Your task to perform on an android device: install app "HBO Max: Stream TV & Movies" Image 0: 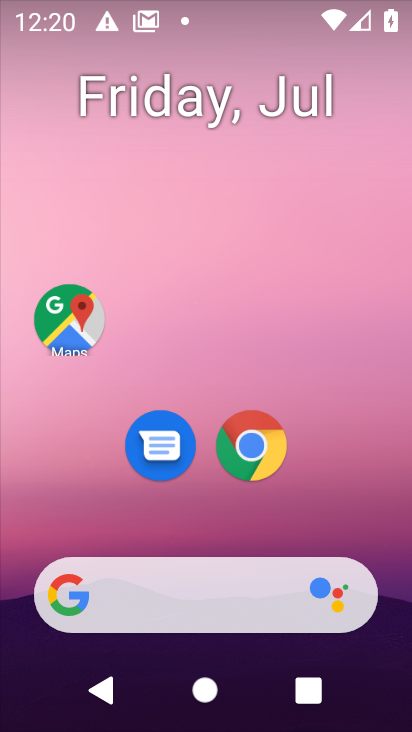
Step 0: drag from (199, 543) to (79, 14)
Your task to perform on an android device: install app "HBO Max: Stream TV & Movies" Image 1: 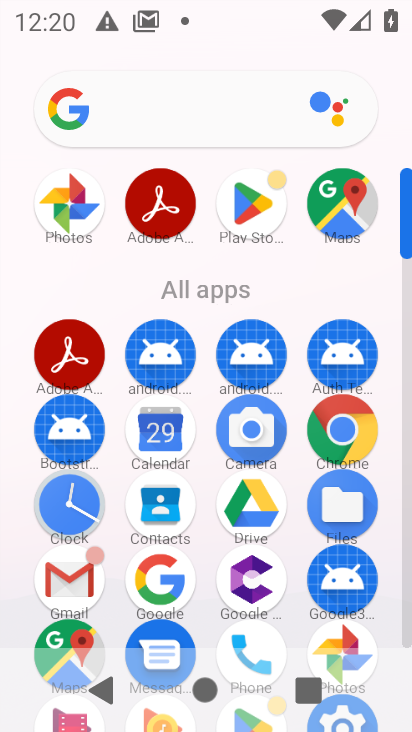
Step 1: click (259, 221)
Your task to perform on an android device: install app "HBO Max: Stream TV & Movies" Image 2: 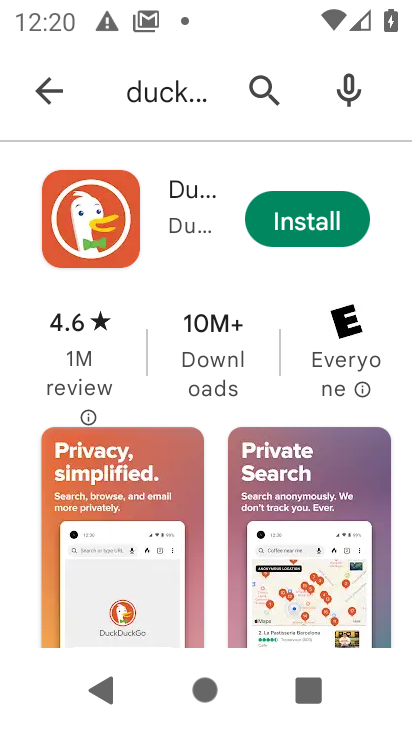
Step 2: click (143, 81)
Your task to perform on an android device: install app "HBO Max: Stream TV & Movies" Image 3: 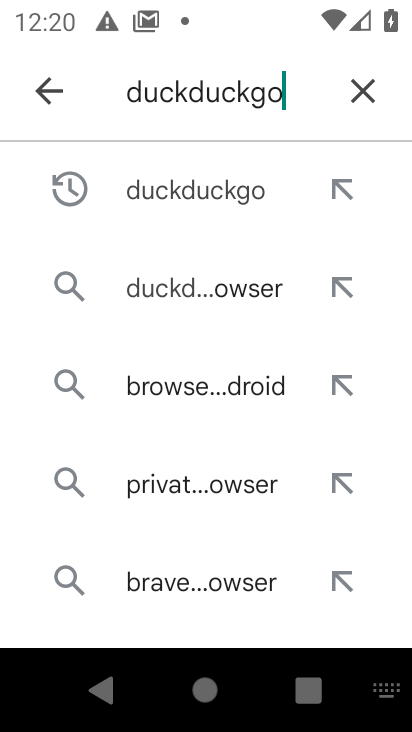
Step 3: click (367, 104)
Your task to perform on an android device: install app "HBO Max: Stream TV & Movies" Image 4: 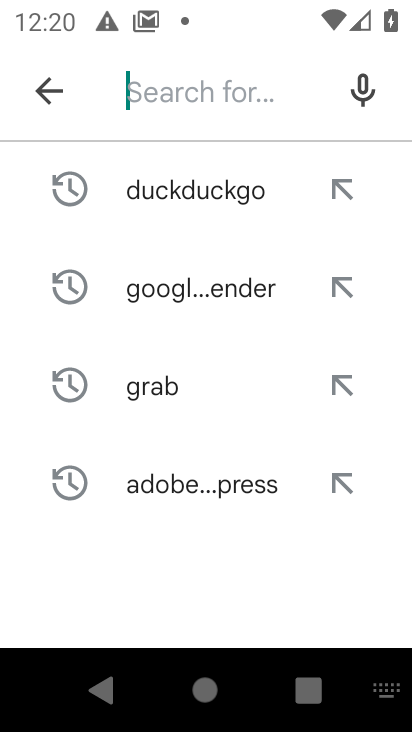
Step 4: click (177, 103)
Your task to perform on an android device: install app "HBO Max: Stream TV & Movies" Image 5: 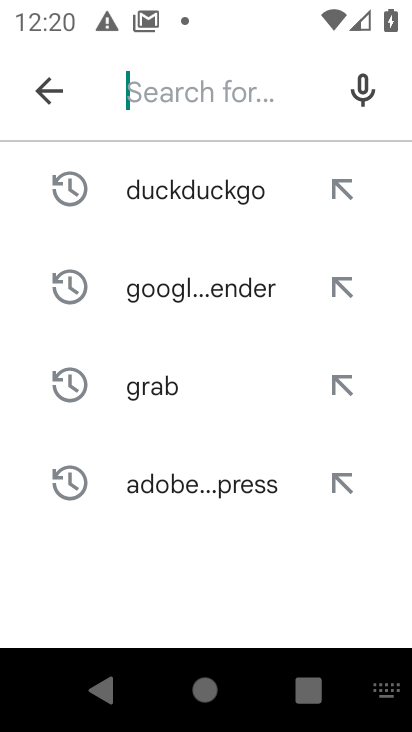
Step 5: type "HBO max"
Your task to perform on an android device: install app "HBO Max: Stream TV & Movies" Image 6: 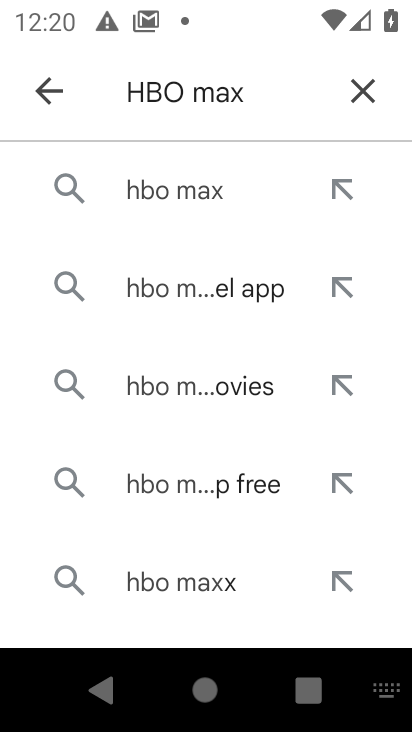
Step 6: click (174, 201)
Your task to perform on an android device: install app "HBO Max: Stream TV & Movies" Image 7: 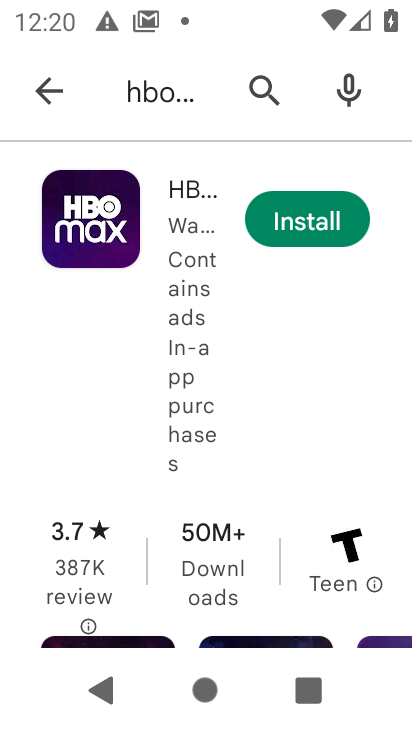
Step 7: click (301, 220)
Your task to perform on an android device: install app "HBO Max: Stream TV & Movies" Image 8: 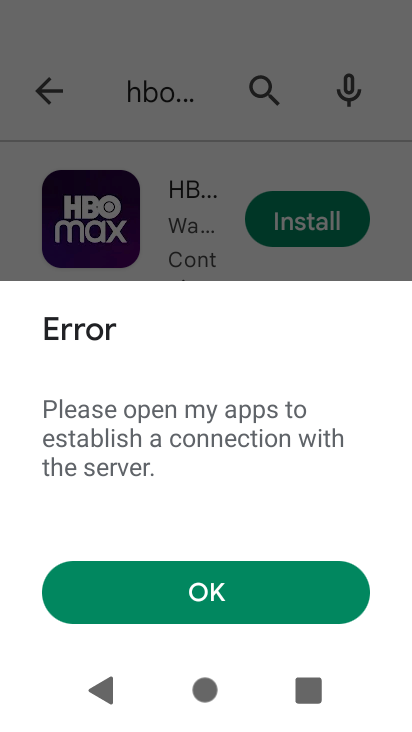
Step 8: click (250, 588)
Your task to perform on an android device: install app "HBO Max: Stream TV & Movies" Image 9: 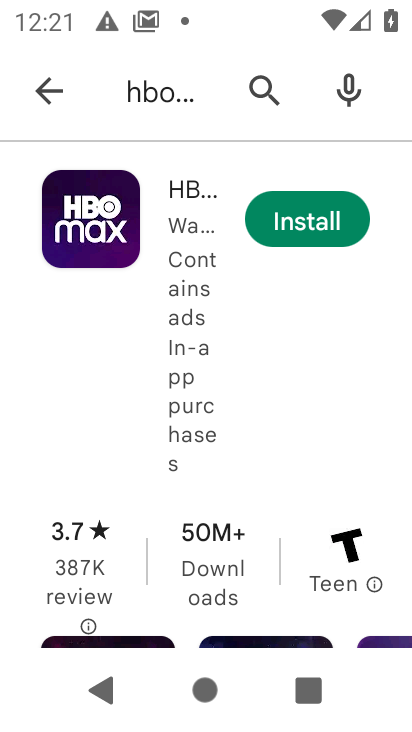
Step 9: click (273, 200)
Your task to perform on an android device: install app "HBO Max: Stream TV & Movies" Image 10: 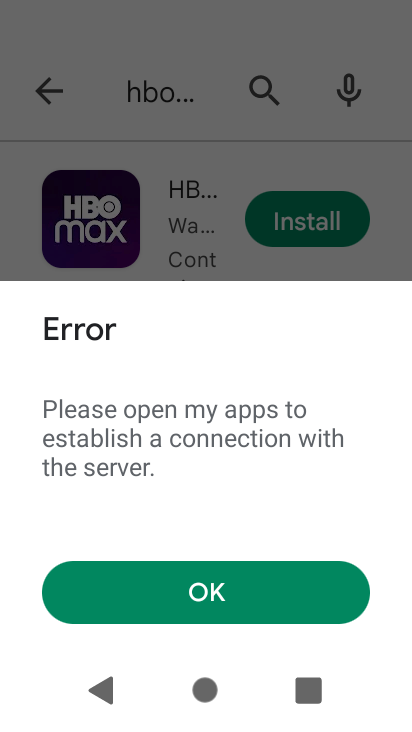
Step 10: click (237, 588)
Your task to perform on an android device: install app "HBO Max: Stream TV & Movies" Image 11: 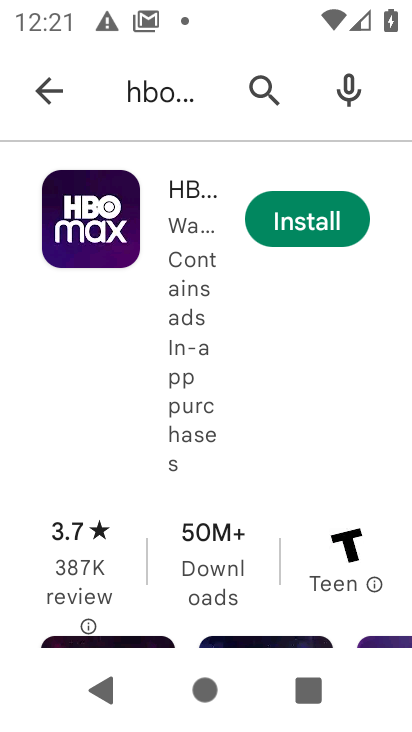
Step 11: task complete